Your task to perform on an android device: all mails in gmail Image 0: 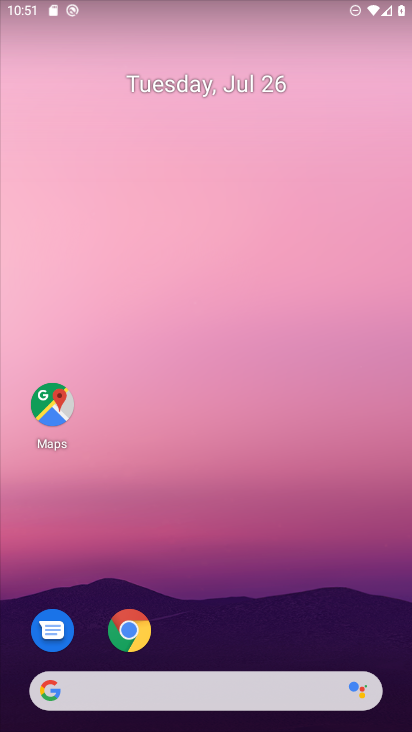
Step 0: drag from (375, 638) to (350, 68)
Your task to perform on an android device: all mails in gmail Image 1: 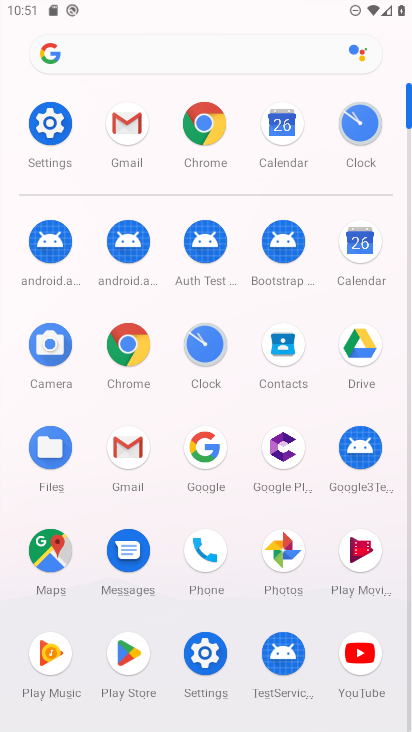
Step 1: click (128, 445)
Your task to perform on an android device: all mails in gmail Image 2: 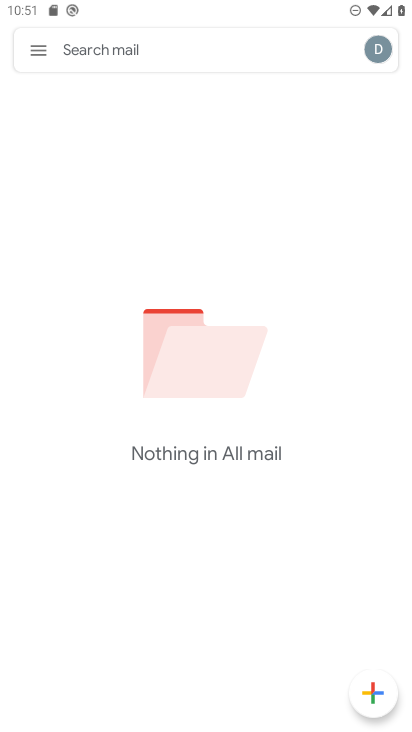
Step 2: click (37, 55)
Your task to perform on an android device: all mails in gmail Image 3: 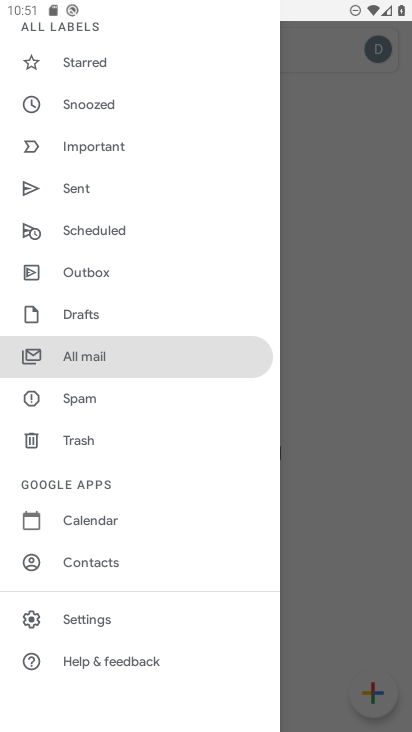
Step 3: click (92, 355)
Your task to perform on an android device: all mails in gmail Image 4: 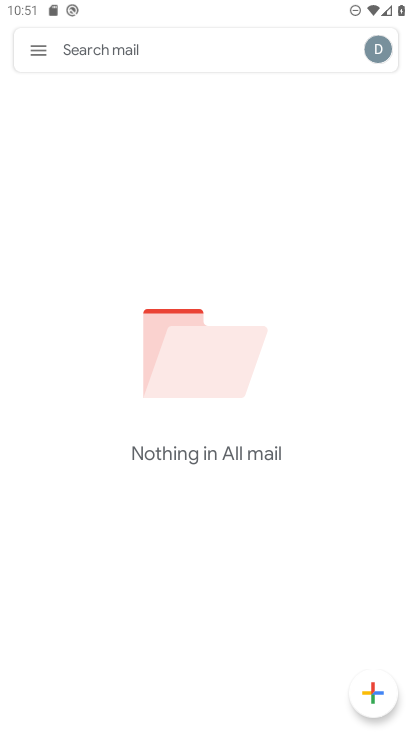
Step 4: task complete